Your task to perform on an android device: create a new album in the google photos Image 0: 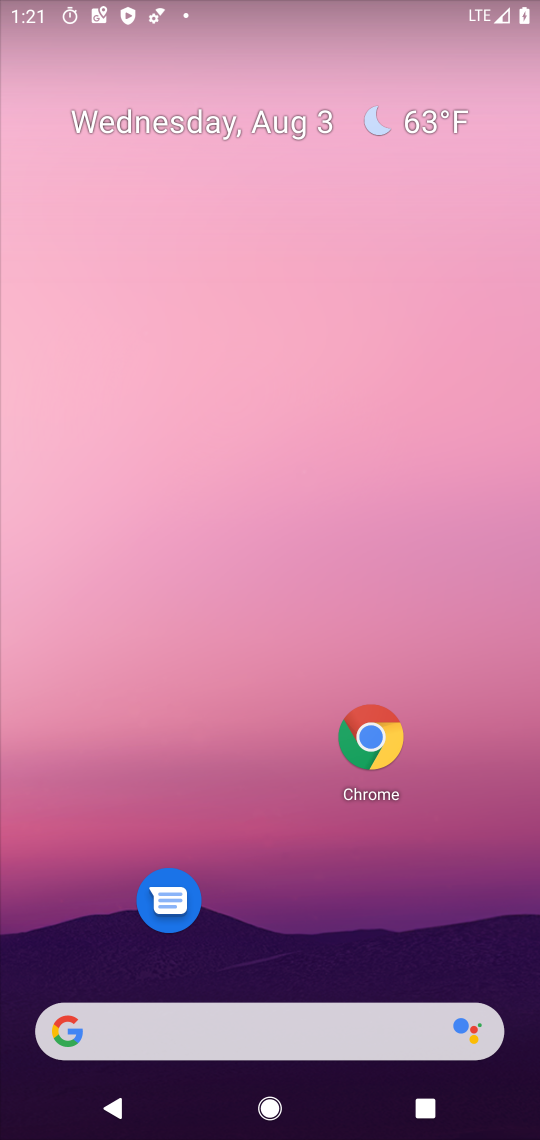
Step 0: drag from (431, 929) to (473, 181)
Your task to perform on an android device: create a new album in the google photos Image 1: 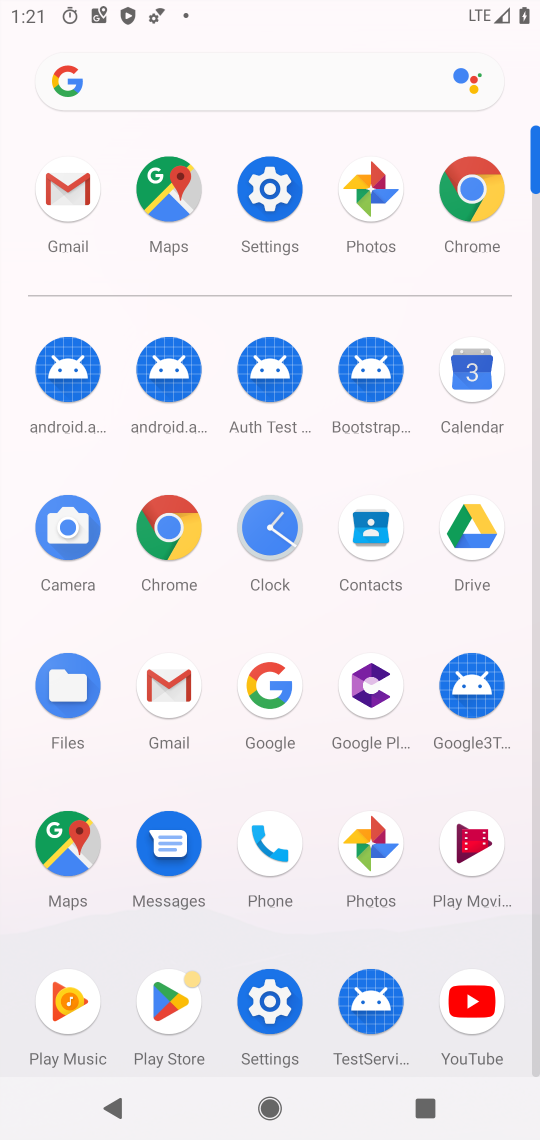
Step 1: click (376, 856)
Your task to perform on an android device: create a new album in the google photos Image 2: 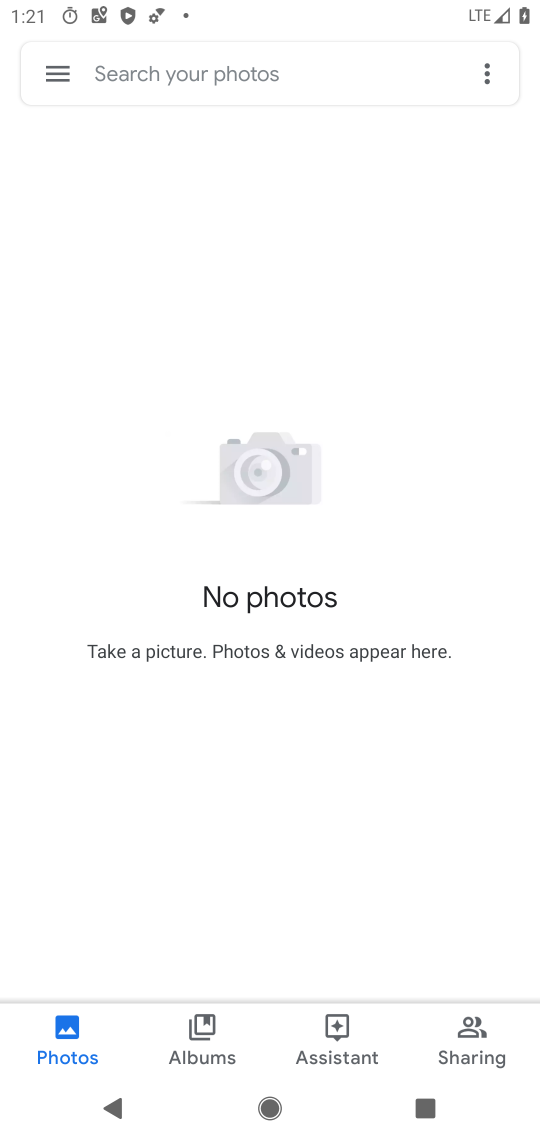
Step 2: click (226, 1033)
Your task to perform on an android device: create a new album in the google photos Image 3: 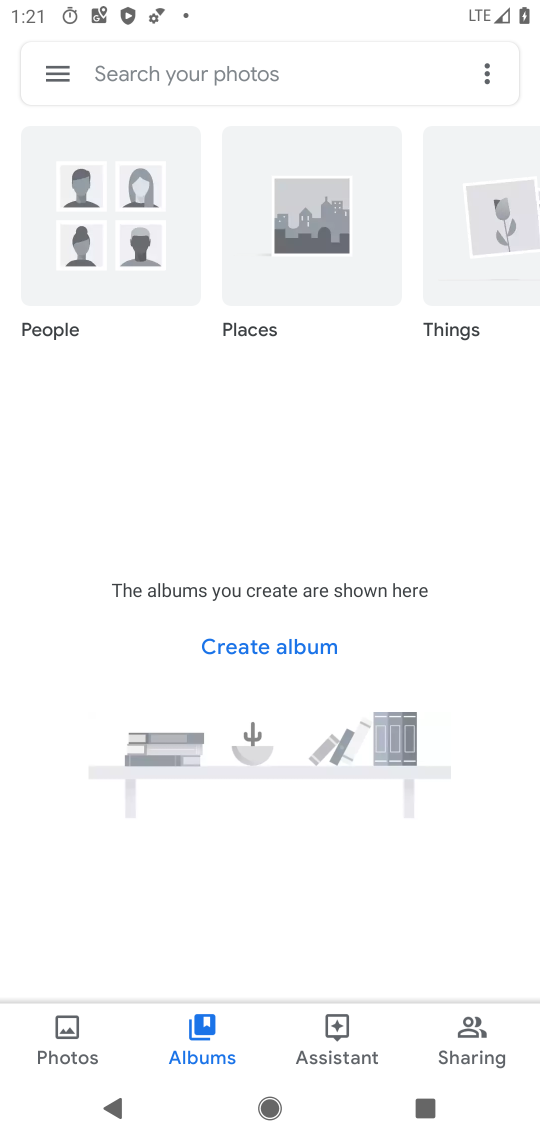
Step 3: click (278, 649)
Your task to perform on an android device: create a new album in the google photos Image 4: 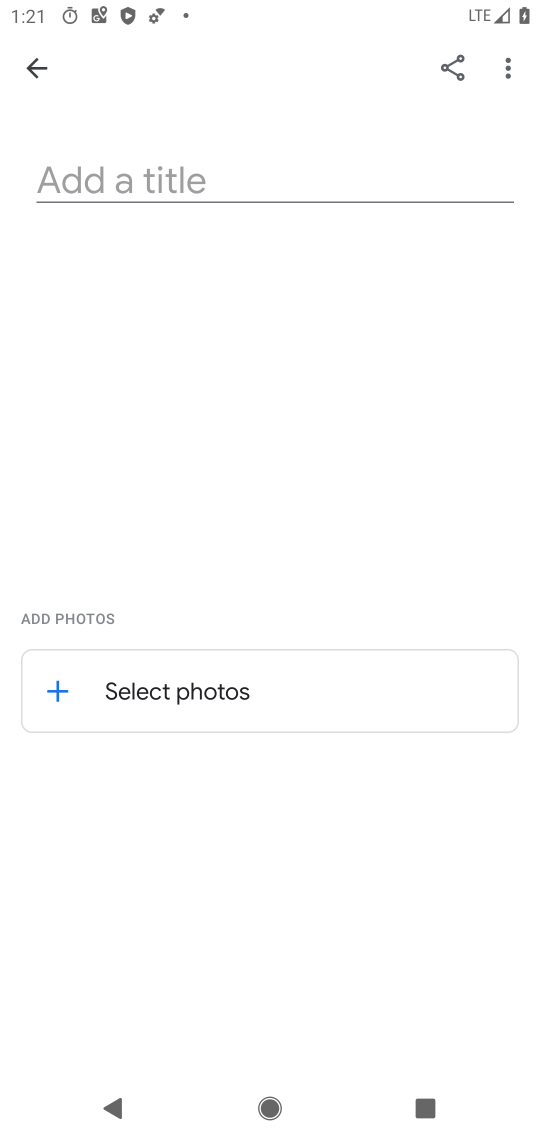
Step 4: click (345, 174)
Your task to perform on an android device: create a new album in the google photos Image 5: 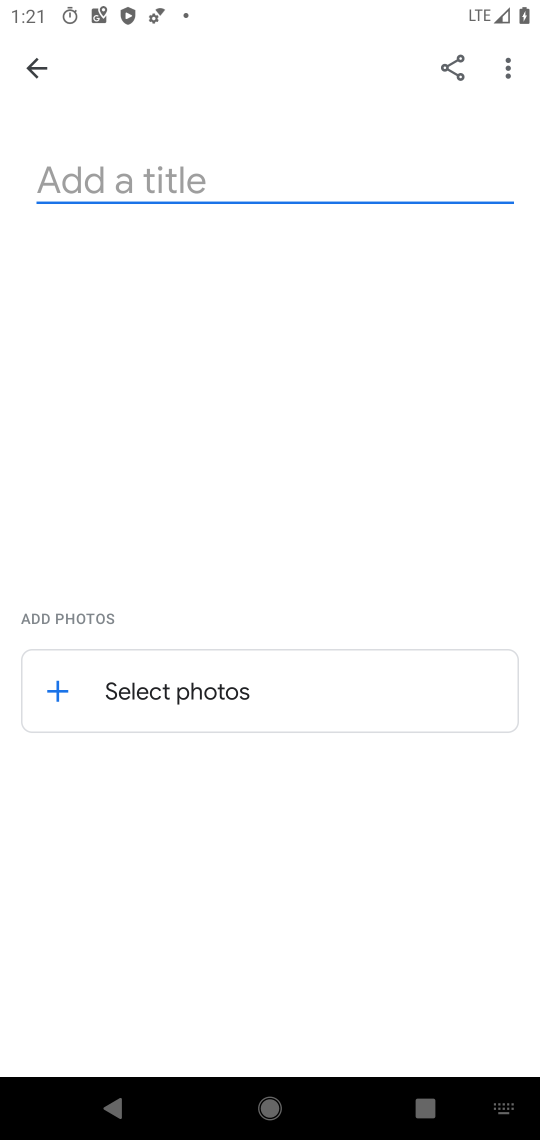
Step 5: type "Kol"
Your task to perform on an android device: create a new album in the google photos Image 6: 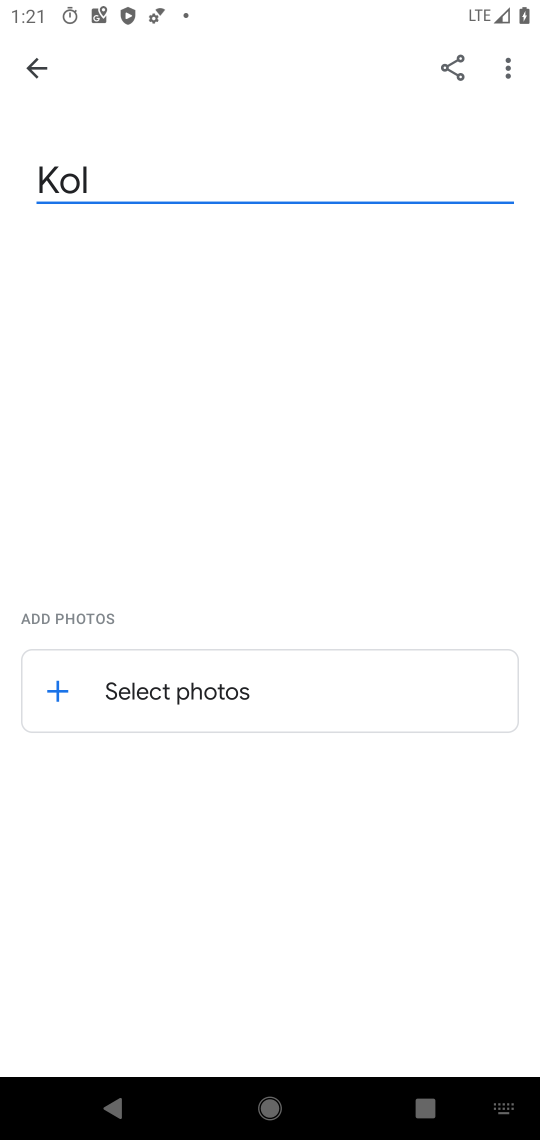
Step 6: click (513, 57)
Your task to perform on an android device: create a new album in the google photos Image 7: 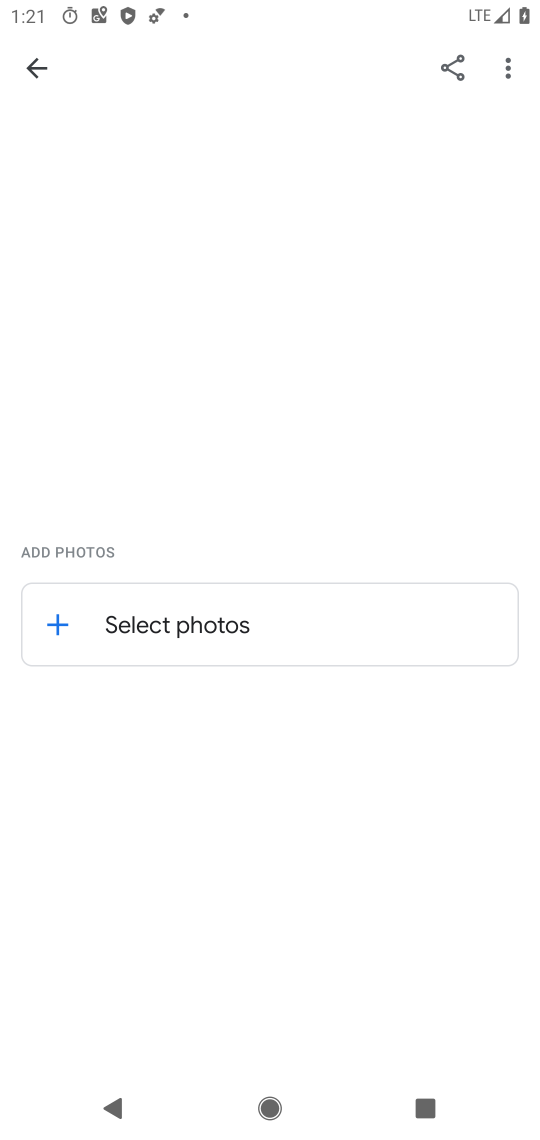
Step 7: click (504, 57)
Your task to perform on an android device: create a new album in the google photos Image 8: 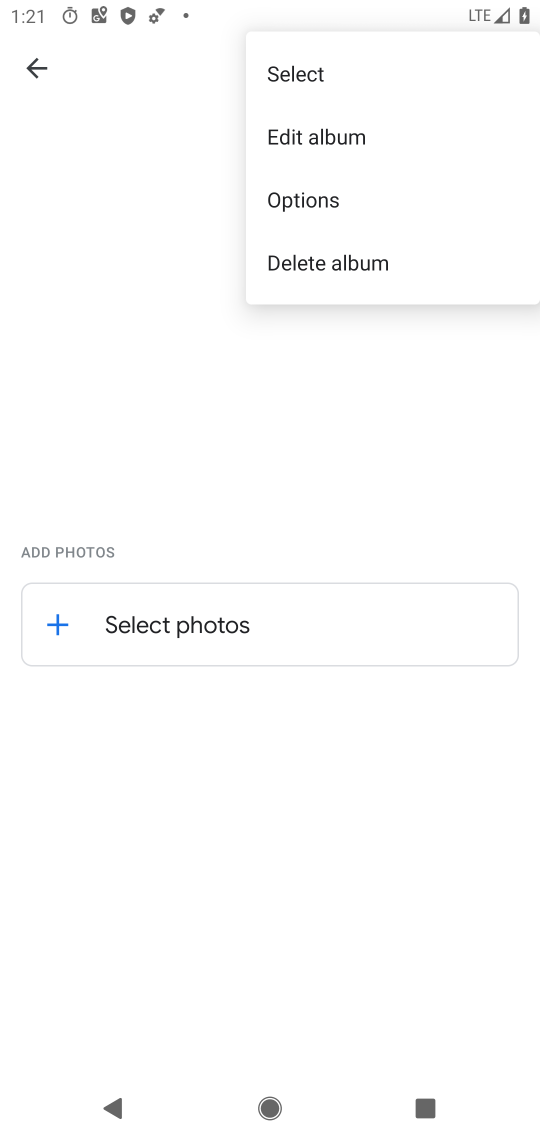
Step 8: click (249, 380)
Your task to perform on an android device: create a new album in the google photos Image 9: 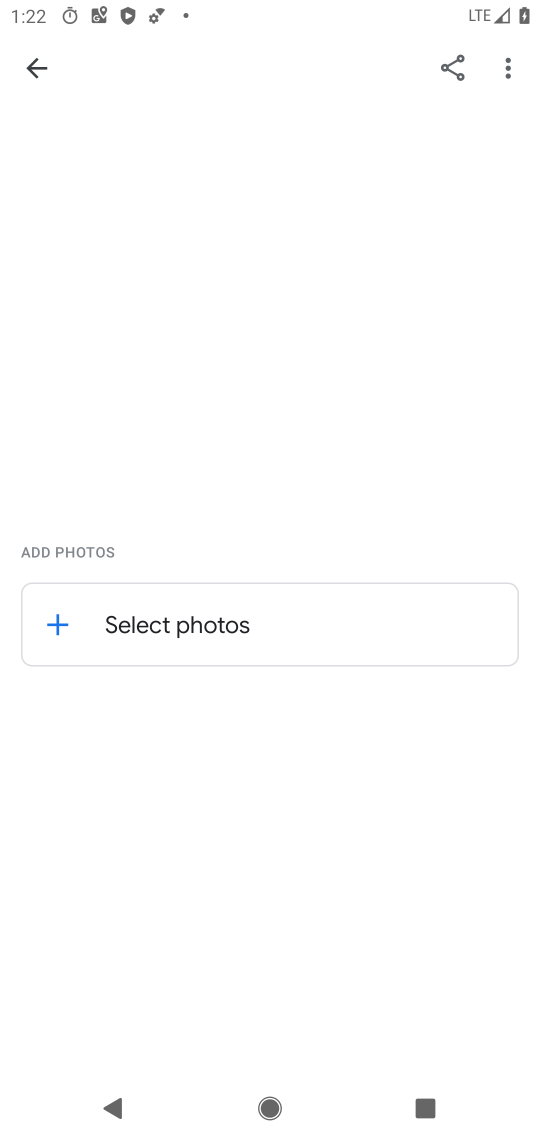
Step 9: click (34, 71)
Your task to perform on an android device: create a new album in the google photos Image 10: 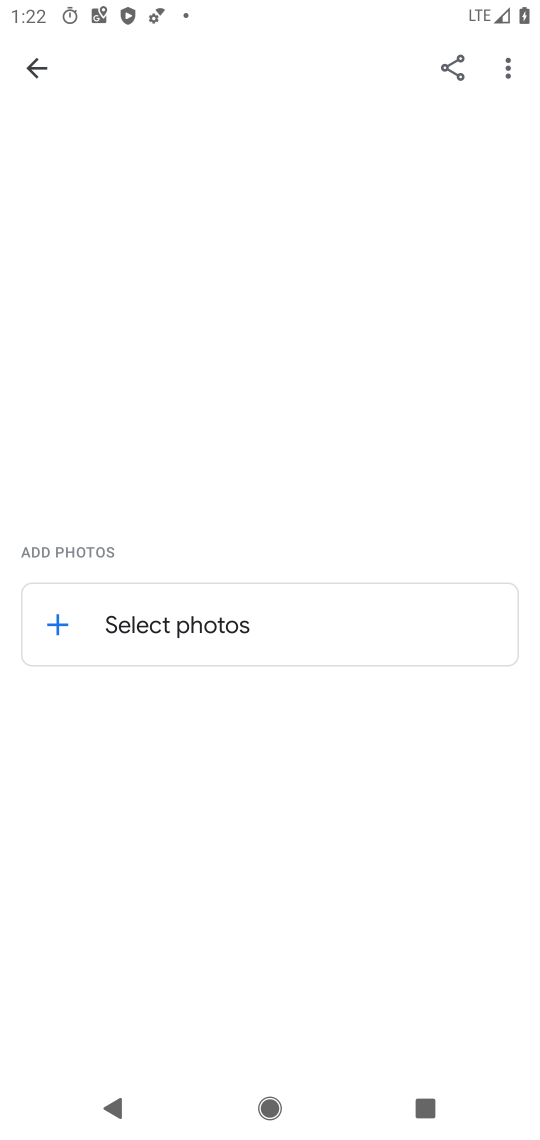
Step 10: click (211, 639)
Your task to perform on an android device: create a new album in the google photos Image 11: 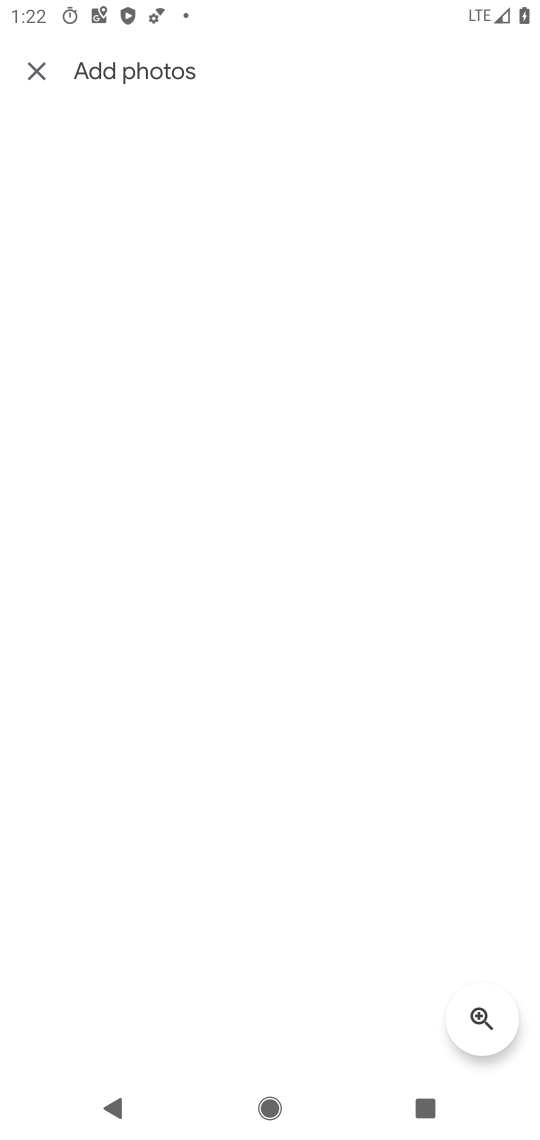
Step 11: click (27, 77)
Your task to perform on an android device: create a new album in the google photos Image 12: 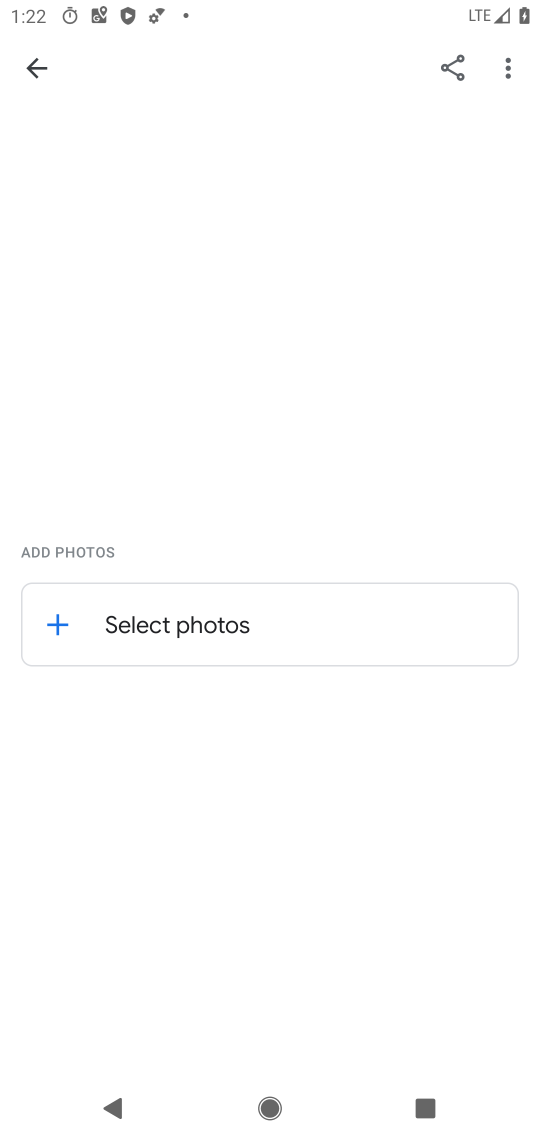
Step 12: click (32, 63)
Your task to perform on an android device: create a new album in the google photos Image 13: 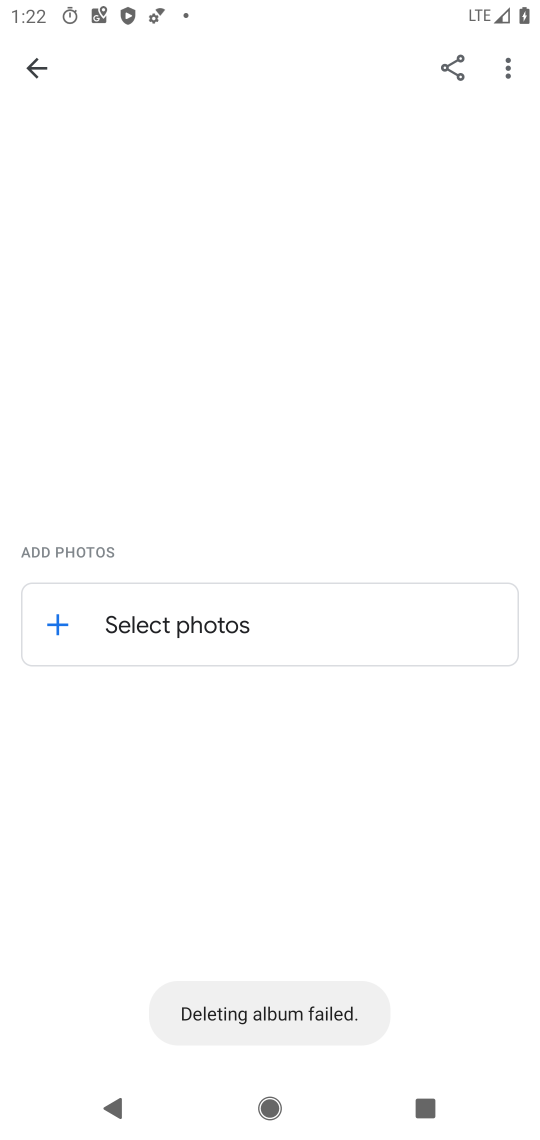
Step 13: click (50, 70)
Your task to perform on an android device: create a new album in the google photos Image 14: 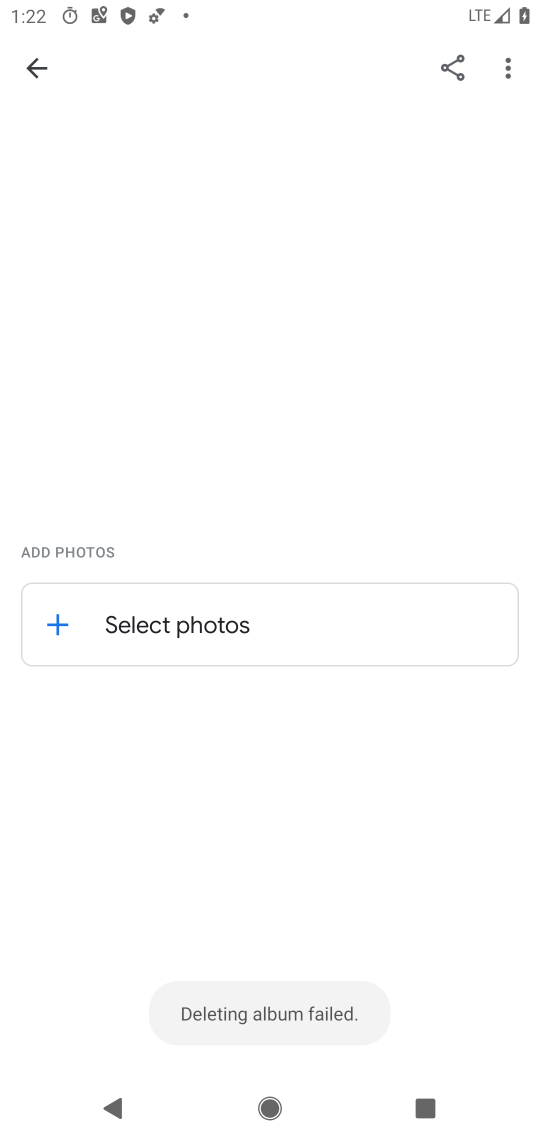
Step 14: click (50, 70)
Your task to perform on an android device: create a new album in the google photos Image 15: 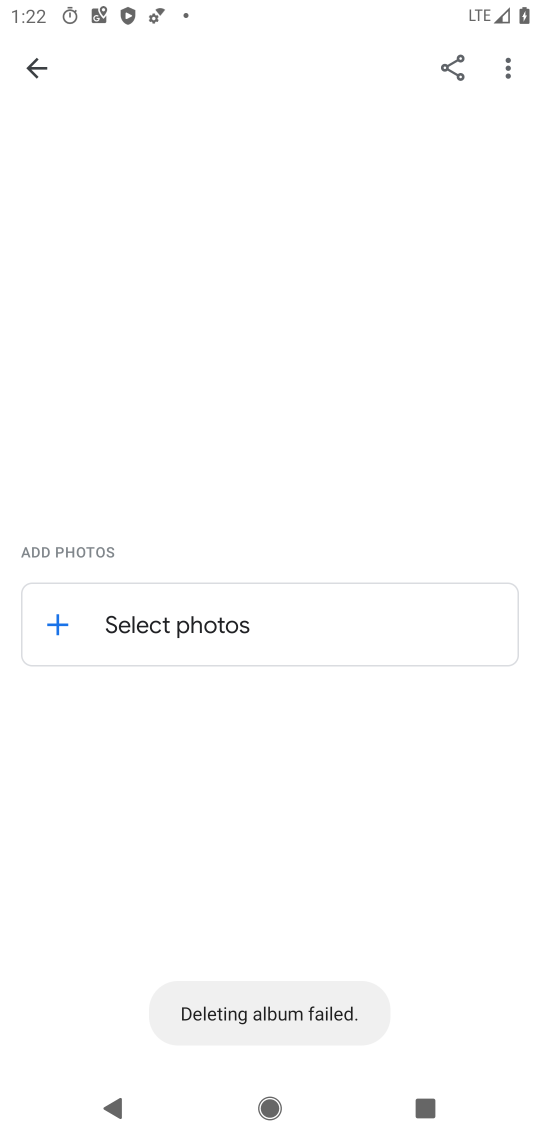
Step 15: click (272, 495)
Your task to perform on an android device: create a new album in the google photos Image 16: 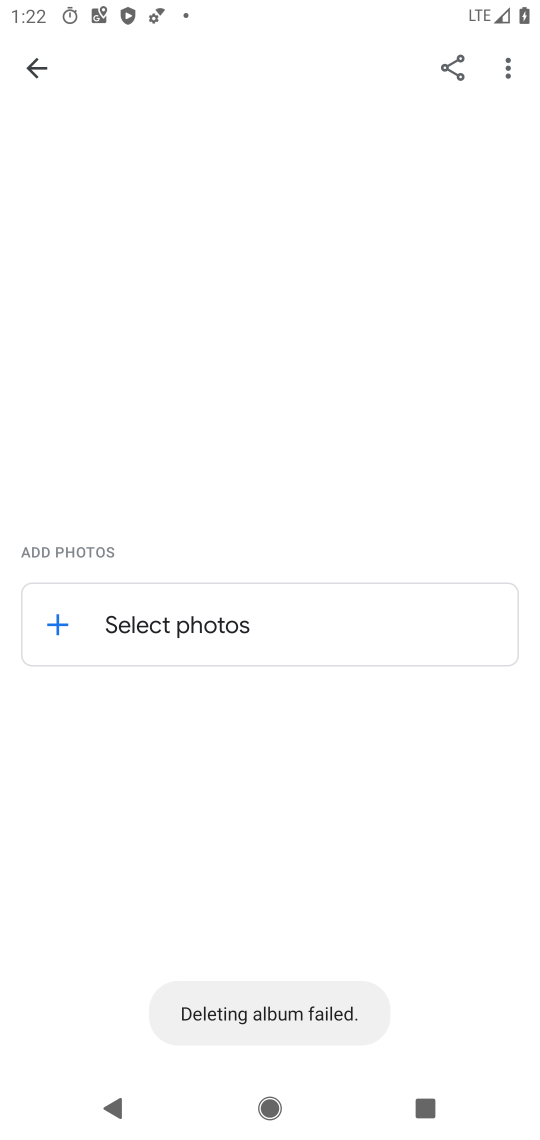
Step 16: click (344, 921)
Your task to perform on an android device: create a new album in the google photos Image 17: 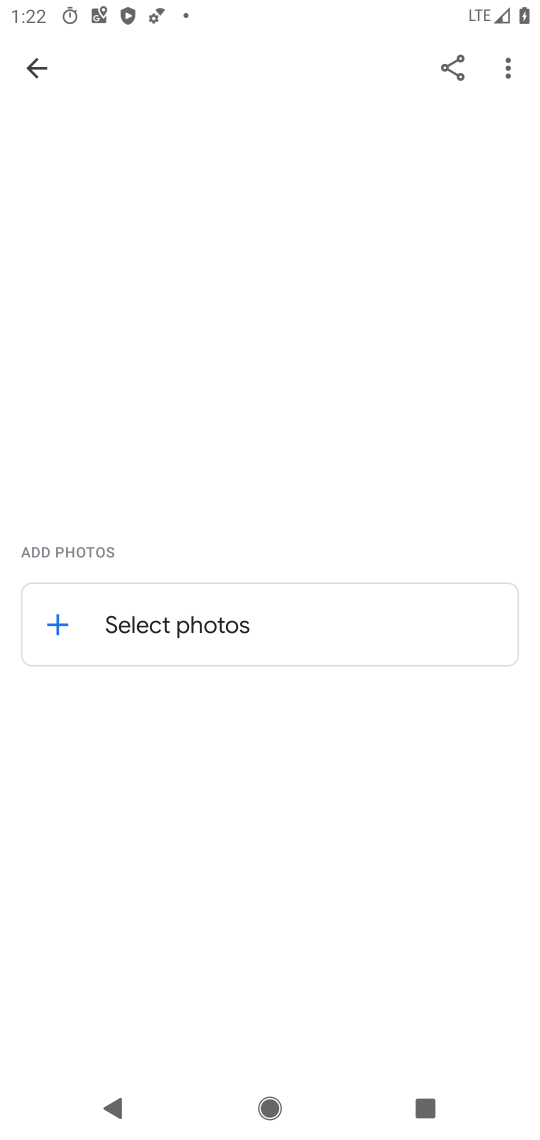
Step 17: click (344, 918)
Your task to perform on an android device: create a new album in the google photos Image 18: 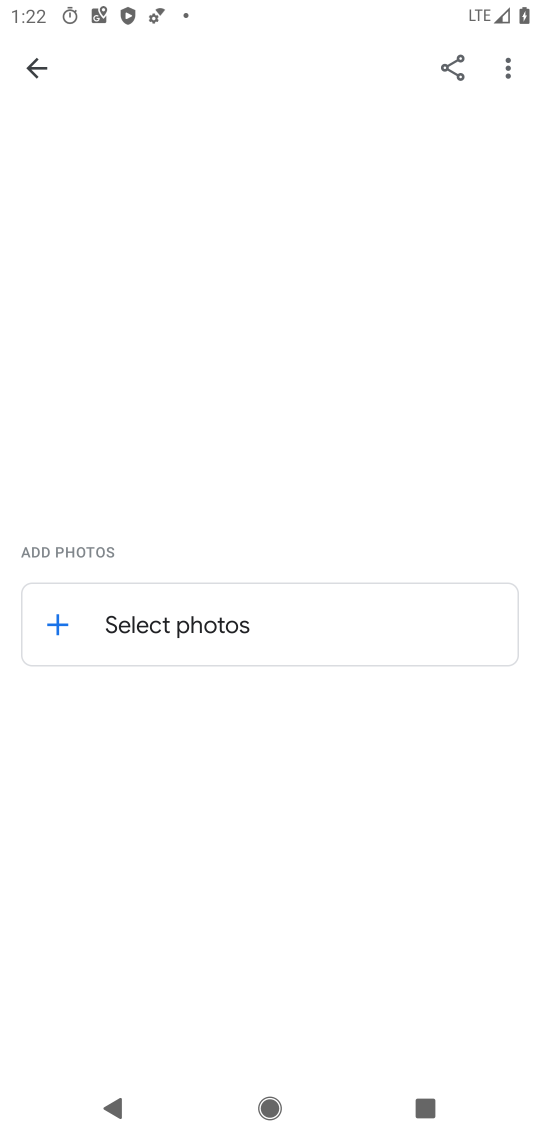
Step 18: click (344, 918)
Your task to perform on an android device: create a new album in the google photos Image 19: 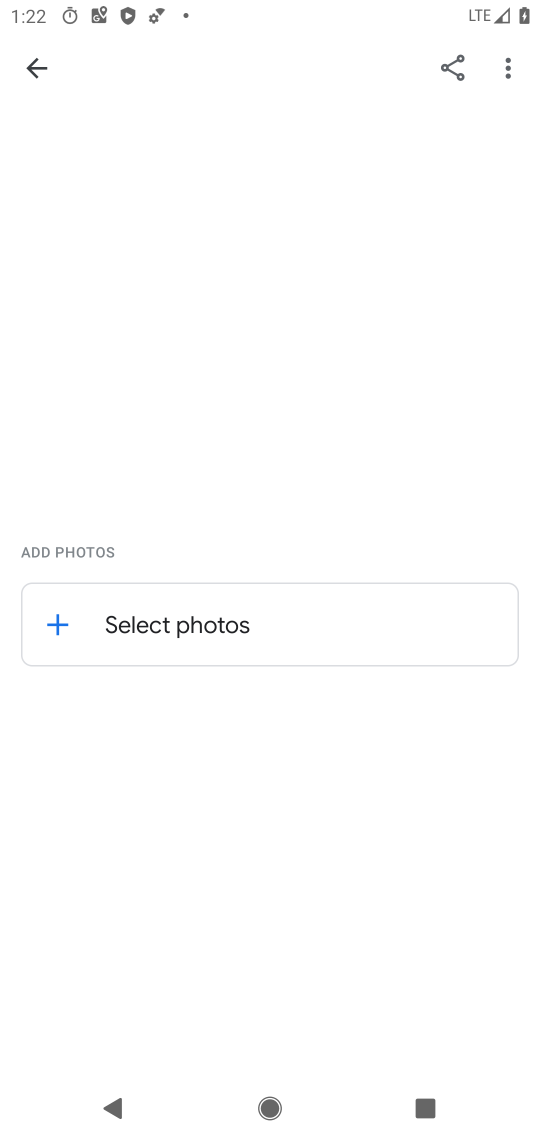
Step 19: task complete